Your task to perform on an android device: add a contact Image 0: 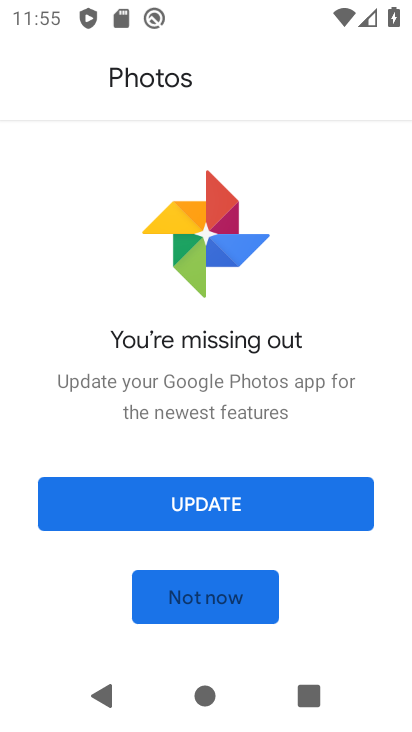
Step 0: press home button
Your task to perform on an android device: add a contact Image 1: 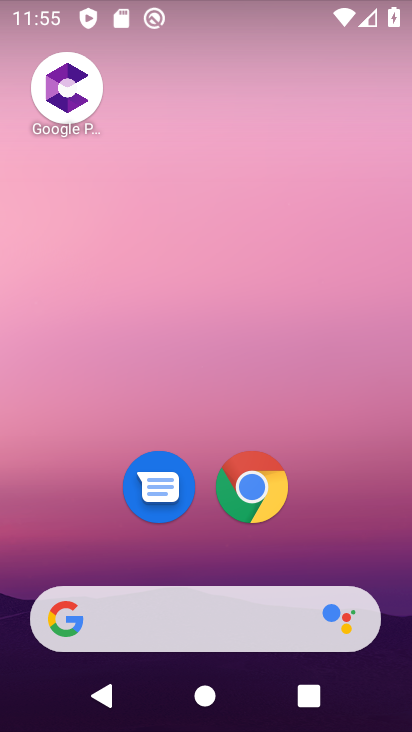
Step 1: drag from (394, 603) to (318, 20)
Your task to perform on an android device: add a contact Image 2: 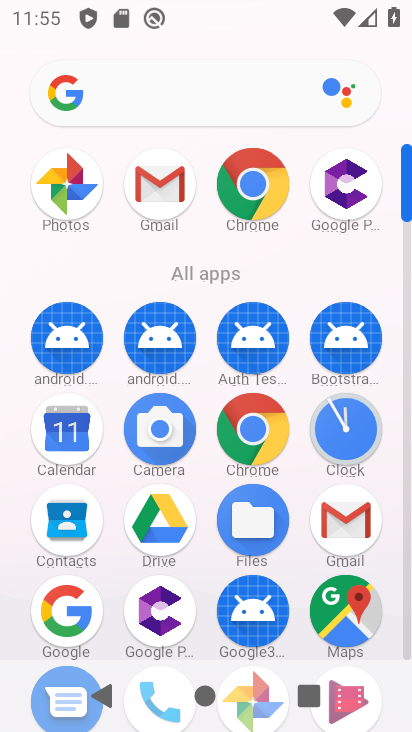
Step 2: click (65, 520)
Your task to perform on an android device: add a contact Image 3: 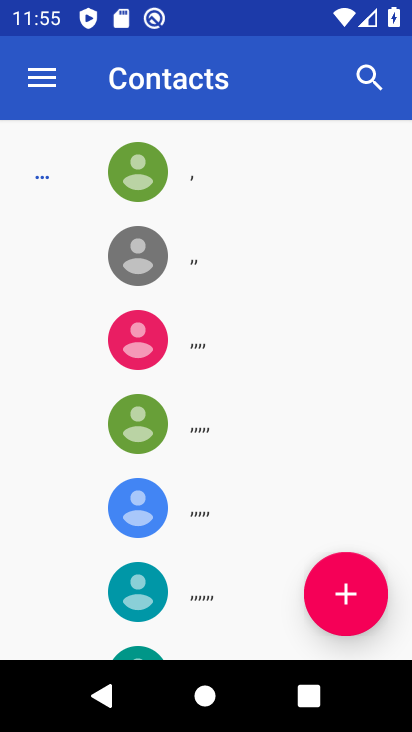
Step 3: click (348, 595)
Your task to perform on an android device: add a contact Image 4: 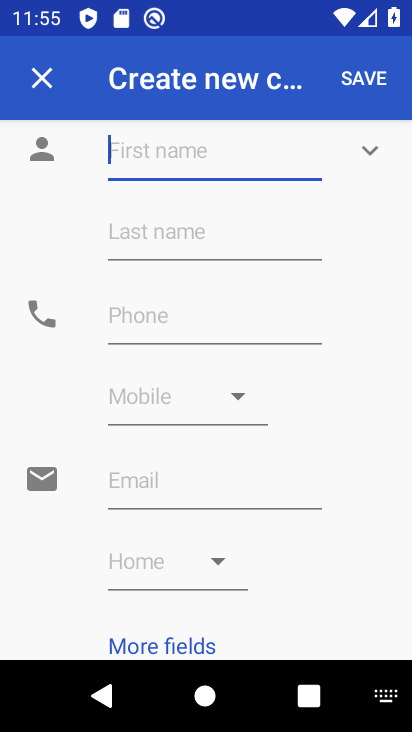
Step 4: type "dgjdsj"
Your task to perform on an android device: add a contact Image 5: 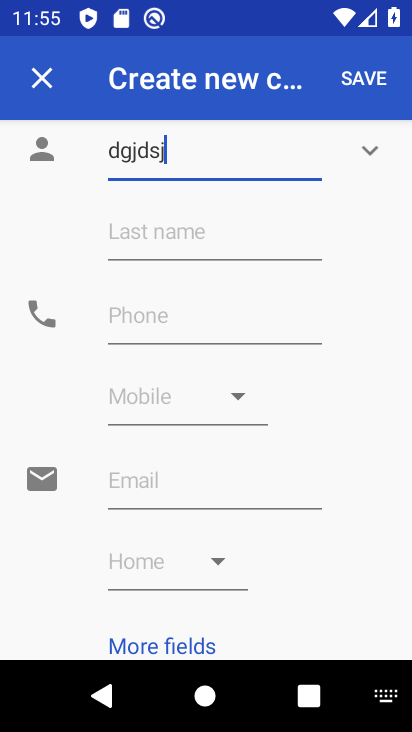
Step 5: click (152, 324)
Your task to perform on an android device: add a contact Image 6: 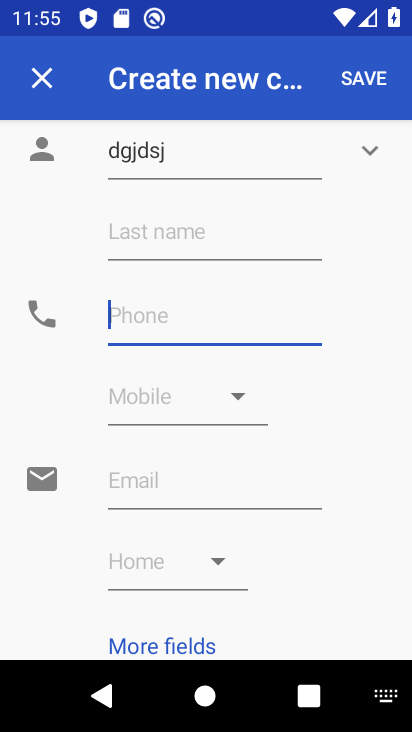
Step 6: type "9685474"
Your task to perform on an android device: add a contact Image 7: 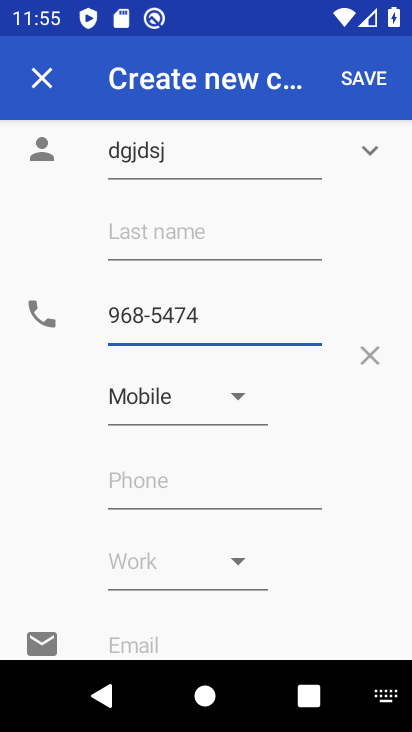
Step 7: click (233, 398)
Your task to perform on an android device: add a contact Image 8: 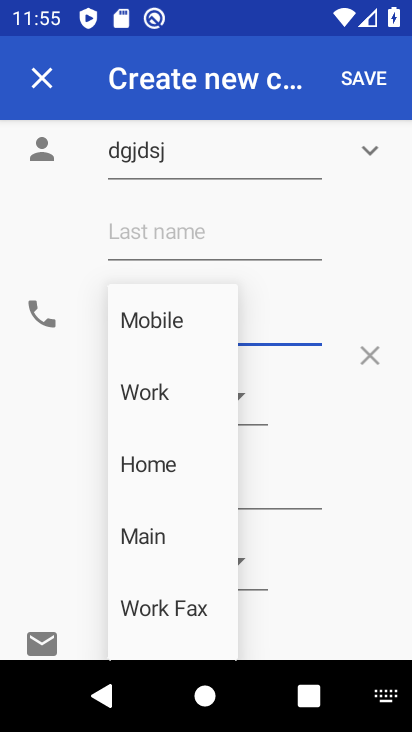
Step 8: click (148, 393)
Your task to perform on an android device: add a contact Image 9: 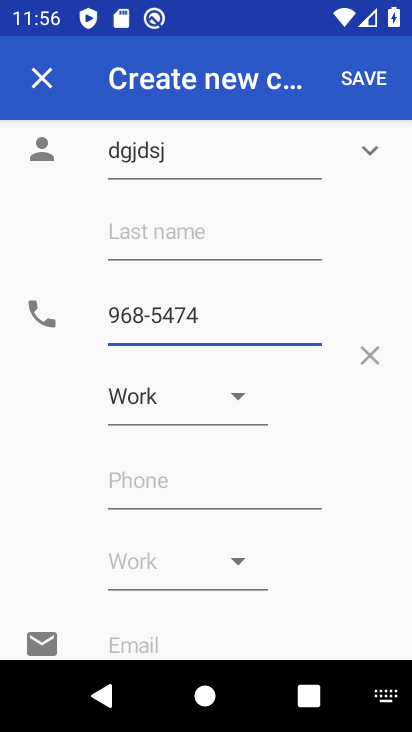
Step 9: click (360, 62)
Your task to perform on an android device: add a contact Image 10: 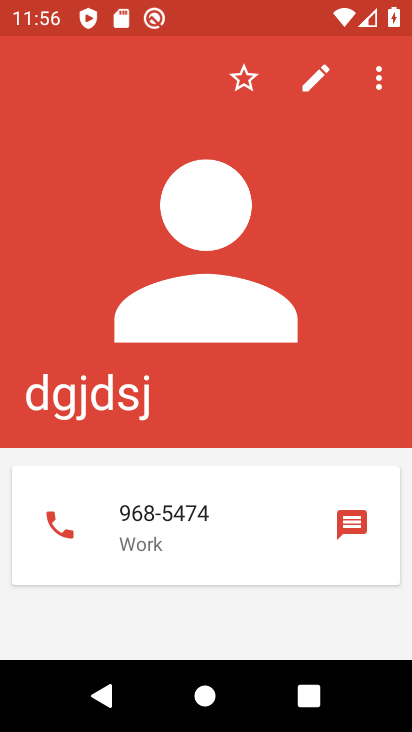
Step 10: task complete